Your task to perform on an android device: Is it going to rain tomorrow? Image 0: 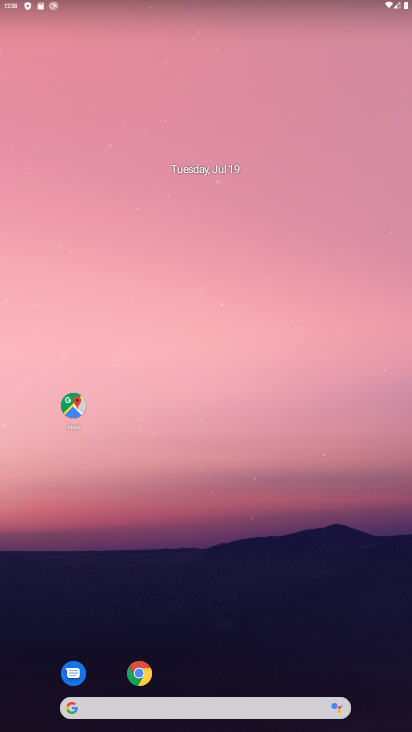
Step 0: drag from (213, 682) to (142, 140)
Your task to perform on an android device: Is it going to rain tomorrow? Image 1: 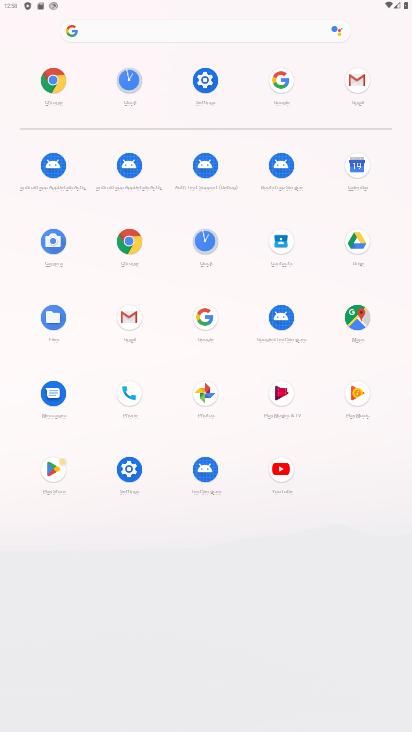
Step 1: click (199, 319)
Your task to perform on an android device: Is it going to rain tomorrow? Image 2: 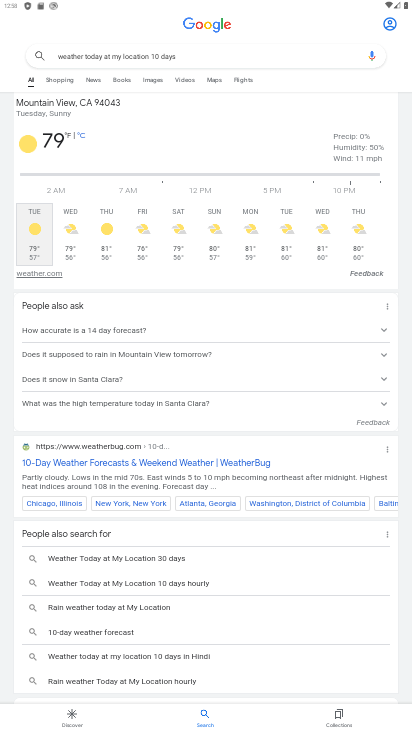
Step 2: click (71, 247)
Your task to perform on an android device: Is it going to rain tomorrow? Image 3: 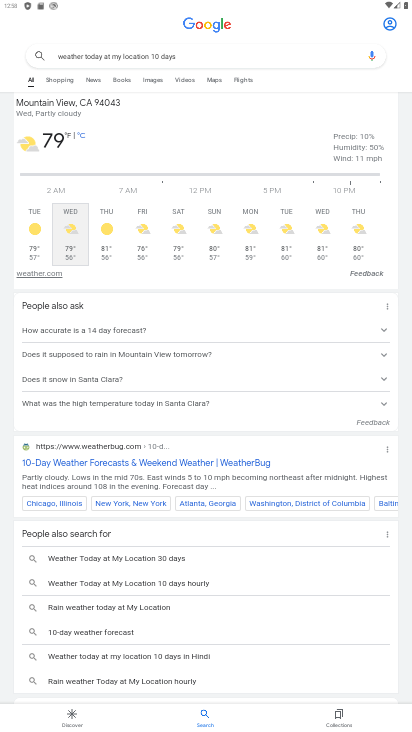
Step 3: task complete